Your task to perform on an android device: Open Chrome and go to the settings page Image 0: 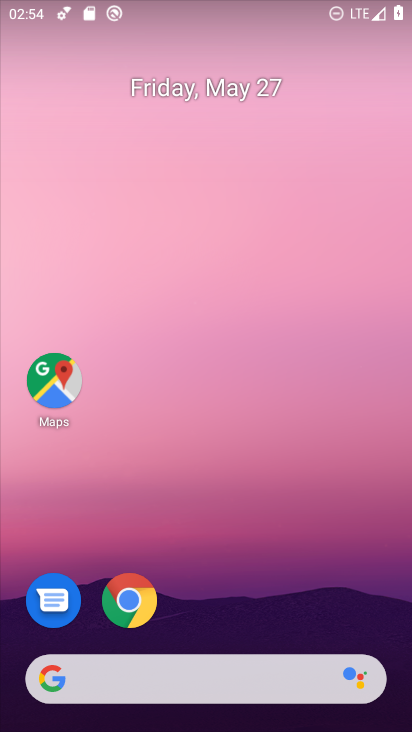
Step 0: click (135, 607)
Your task to perform on an android device: Open Chrome and go to the settings page Image 1: 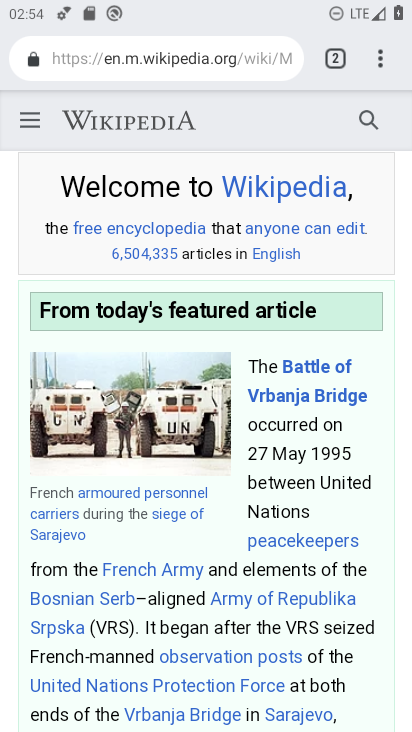
Step 1: click (381, 64)
Your task to perform on an android device: Open Chrome and go to the settings page Image 2: 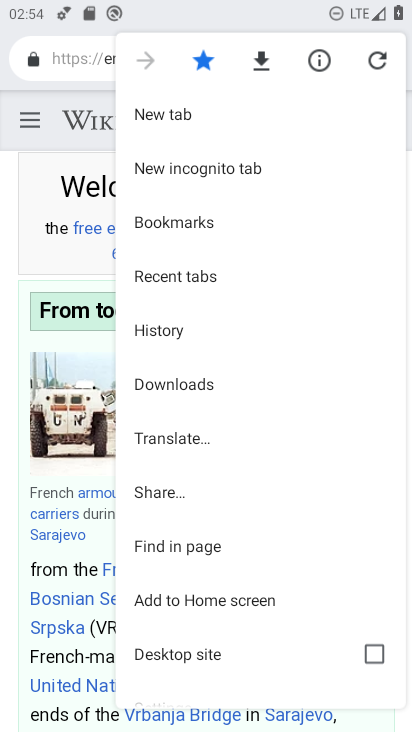
Step 2: drag from (178, 670) to (176, 284)
Your task to perform on an android device: Open Chrome and go to the settings page Image 3: 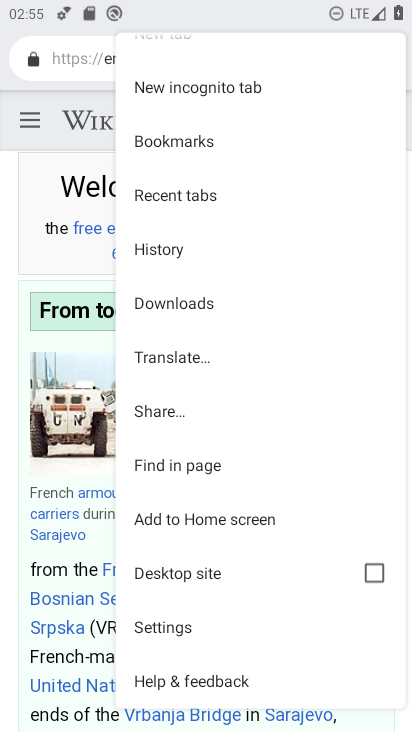
Step 3: click (170, 623)
Your task to perform on an android device: Open Chrome and go to the settings page Image 4: 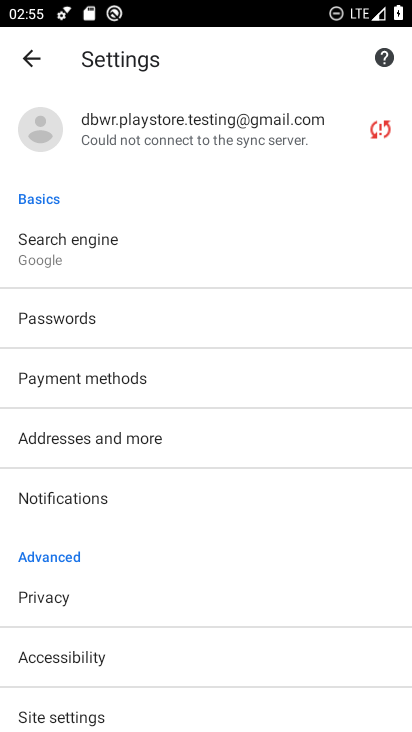
Step 4: task complete